Your task to perform on an android device: turn on javascript in the chrome app Image 0: 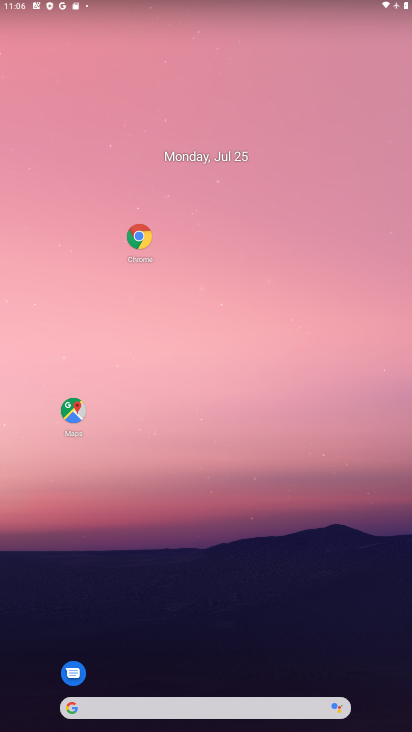
Step 0: click (143, 225)
Your task to perform on an android device: turn on javascript in the chrome app Image 1: 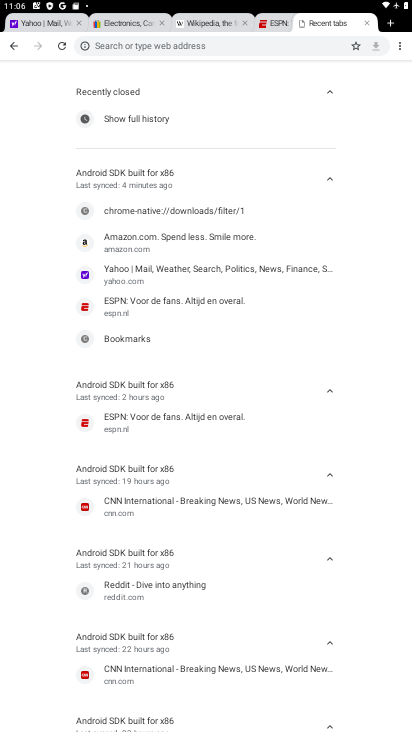
Step 1: click (394, 55)
Your task to perform on an android device: turn on javascript in the chrome app Image 2: 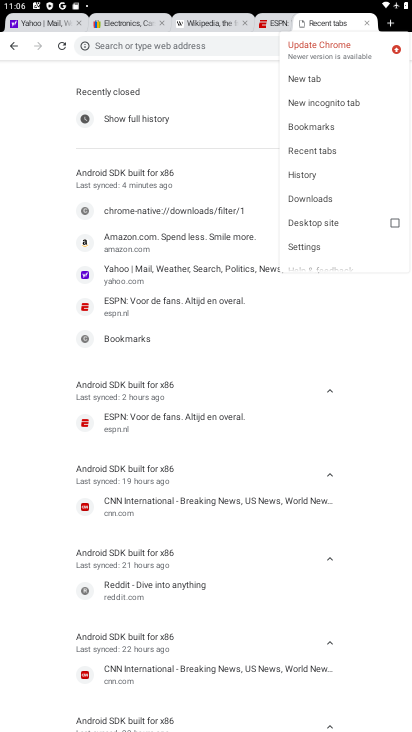
Step 2: click (337, 243)
Your task to perform on an android device: turn on javascript in the chrome app Image 3: 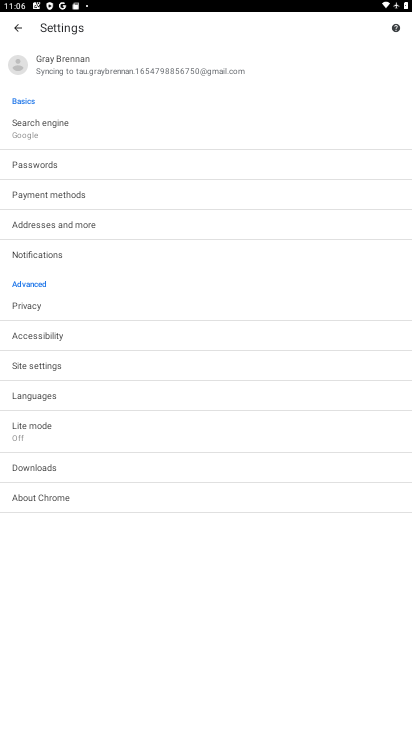
Step 3: click (116, 366)
Your task to perform on an android device: turn on javascript in the chrome app Image 4: 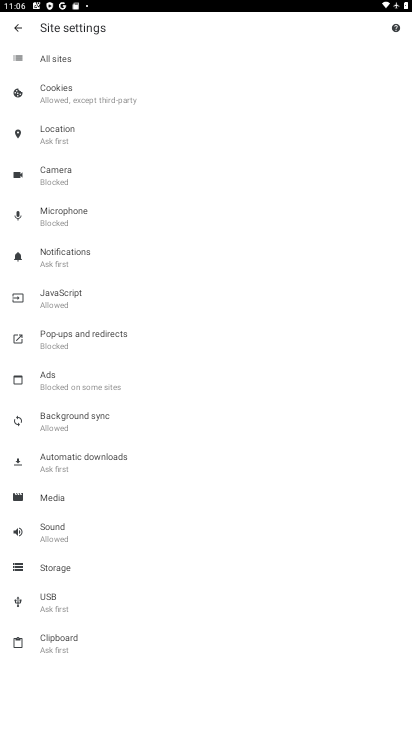
Step 4: click (121, 301)
Your task to perform on an android device: turn on javascript in the chrome app Image 5: 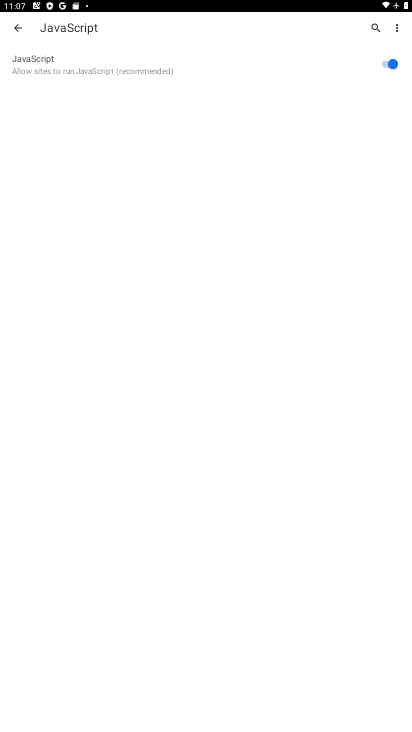
Step 5: task complete